Your task to perform on an android device: see tabs open on other devices in the chrome app Image 0: 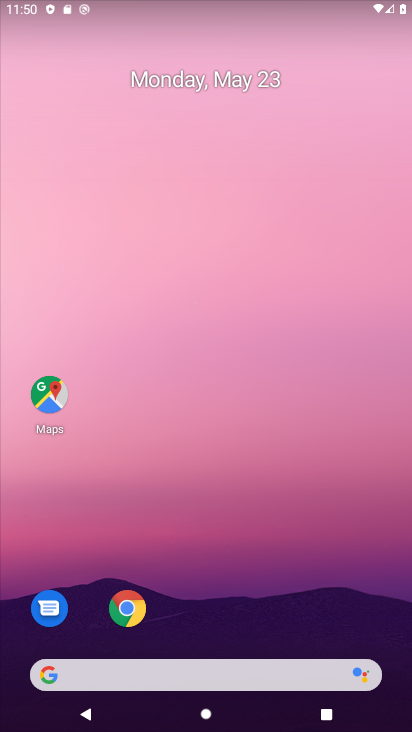
Step 0: press home button
Your task to perform on an android device: see tabs open on other devices in the chrome app Image 1: 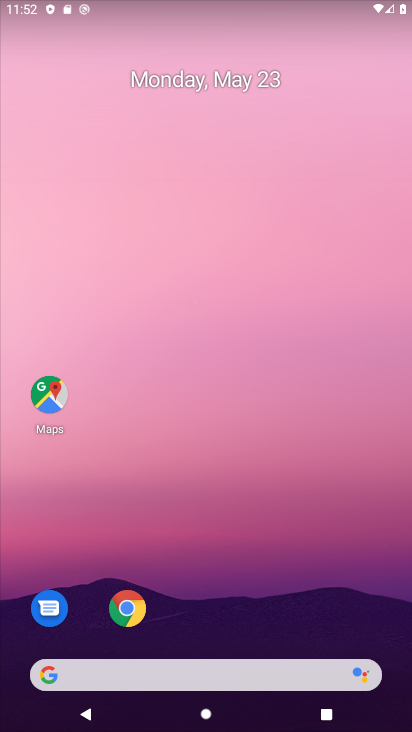
Step 1: drag from (311, 672) to (198, 23)
Your task to perform on an android device: see tabs open on other devices in the chrome app Image 2: 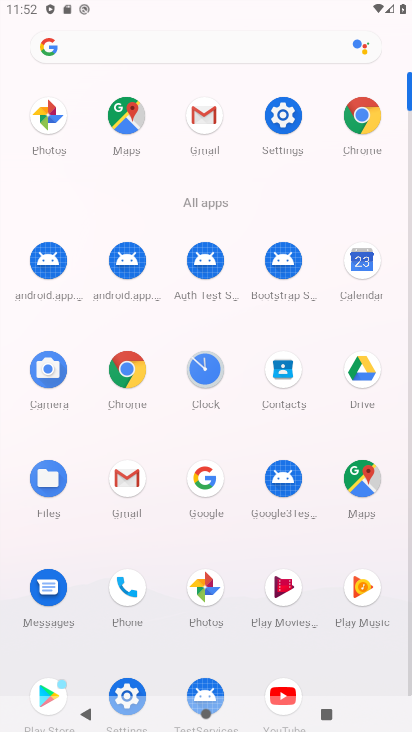
Step 2: click (352, 126)
Your task to perform on an android device: see tabs open on other devices in the chrome app Image 3: 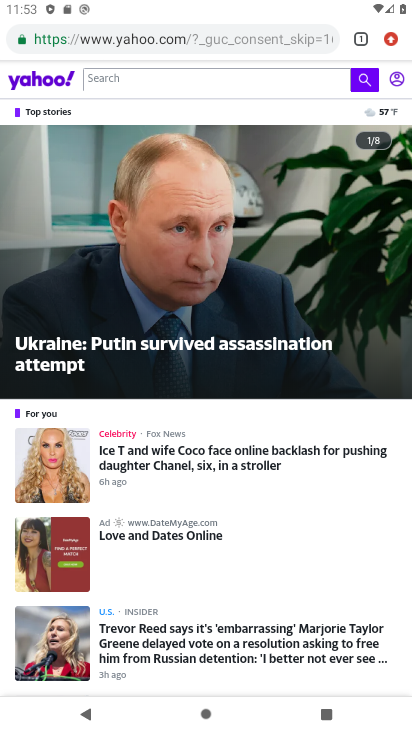
Step 3: click (356, 37)
Your task to perform on an android device: see tabs open on other devices in the chrome app Image 4: 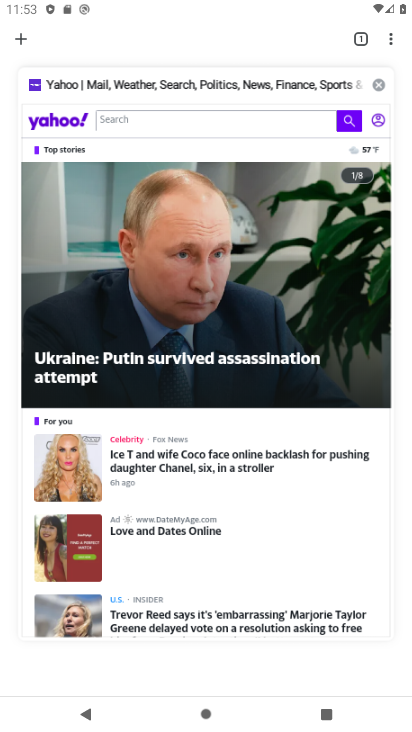
Step 4: click (27, 42)
Your task to perform on an android device: see tabs open on other devices in the chrome app Image 5: 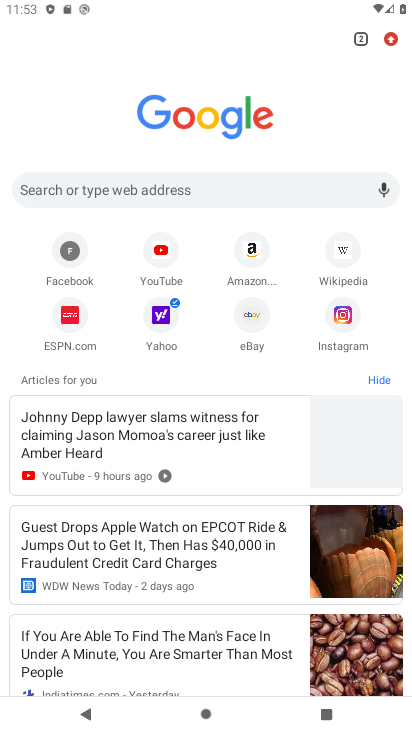
Step 5: task complete